Your task to perform on an android device: Open Youtube and go to "Your channel" Image 0: 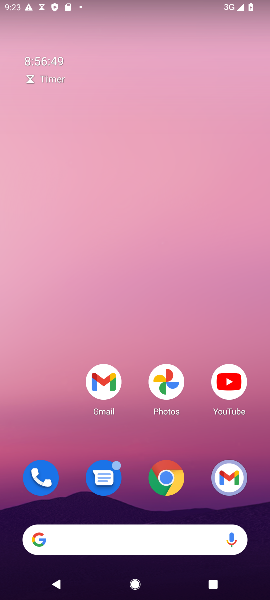
Step 0: drag from (186, 344) to (170, 50)
Your task to perform on an android device: Open Youtube and go to "Your channel" Image 1: 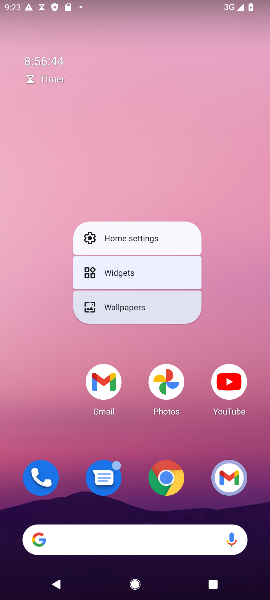
Step 1: click (233, 378)
Your task to perform on an android device: Open Youtube and go to "Your channel" Image 2: 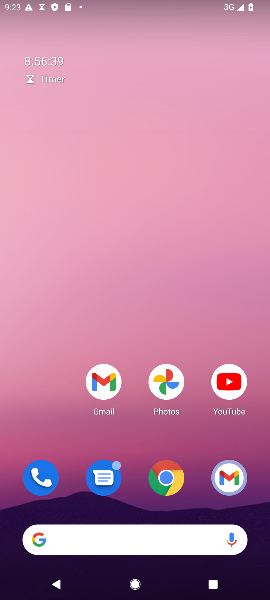
Step 2: click (230, 380)
Your task to perform on an android device: Open Youtube and go to "Your channel" Image 3: 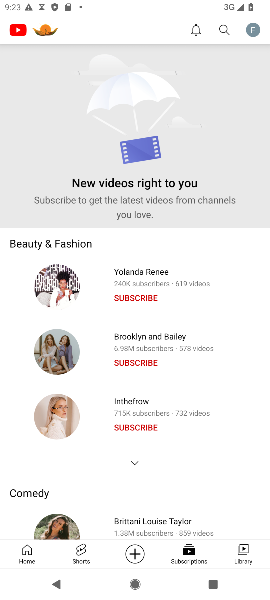
Step 3: click (256, 27)
Your task to perform on an android device: Open Youtube and go to "Your channel" Image 4: 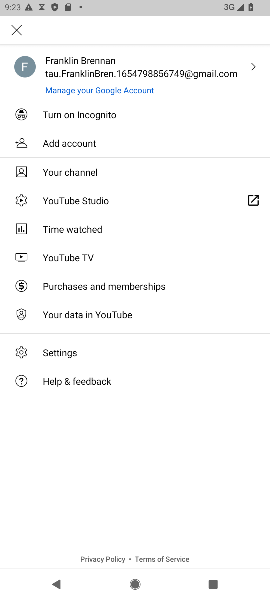
Step 4: click (136, 167)
Your task to perform on an android device: Open Youtube and go to "Your channel" Image 5: 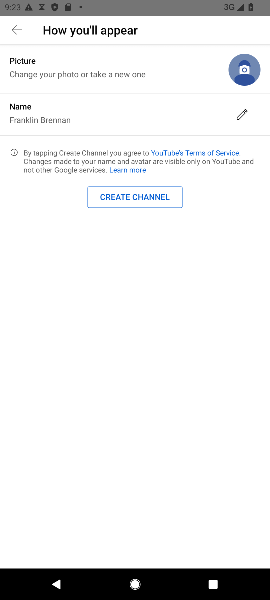
Step 5: task complete